Your task to perform on an android device: Search for pizza restaurants on Maps Image 0: 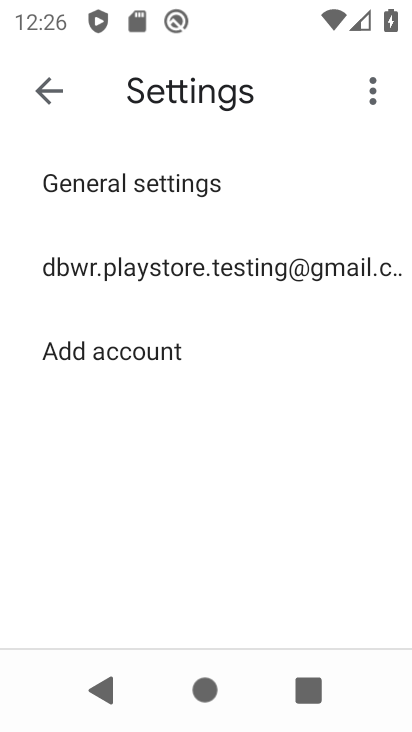
Step 0: press home button
Your task to perform on an android device: Search for pizza restaurants on Maps Image 1: 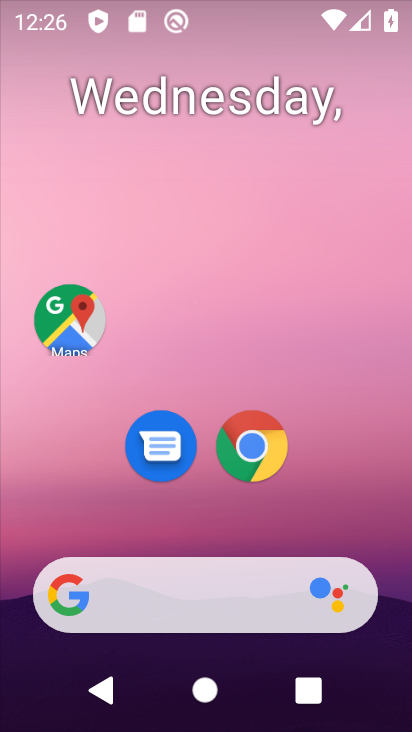
Step 1: drag from (192, 514) to (204, 189)
Your task to perform on an android device: Search for pizza restaurants on Maps Image 2: 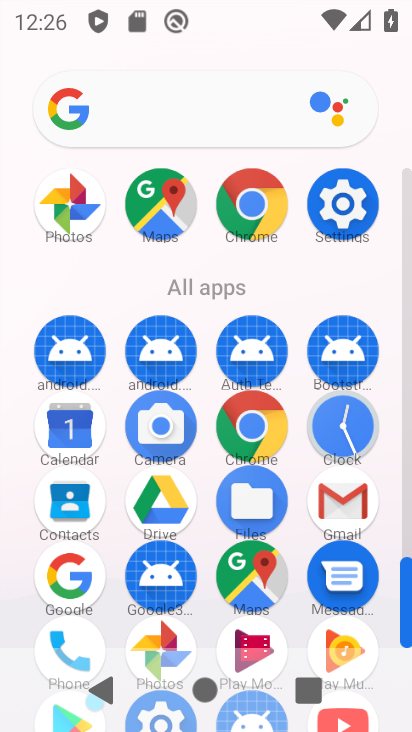
Step 2: drag from (202, 280) to (230, 64)
Your task to perform on an android device: Search for pizza restaurants on Maps Image 3: 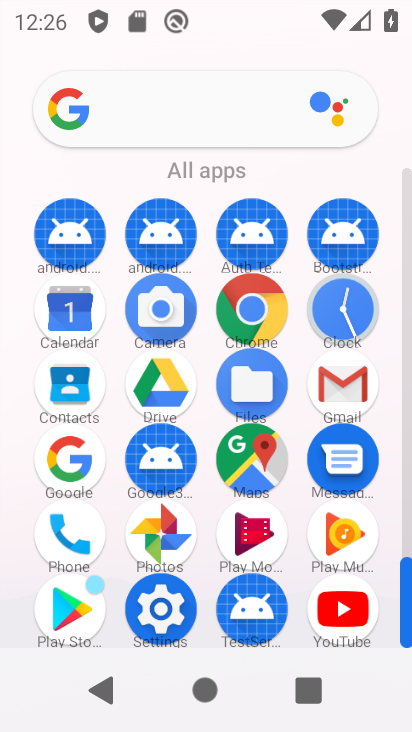
Step 3: click (263, 474)
Your task to perform on an android device: Search for pizza restaurants on Maps Image 4: 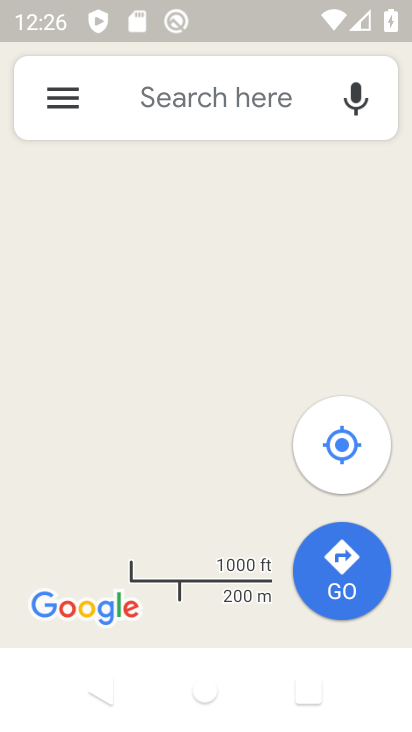
Step 4: click (194, 117)
Your task to perform on an android device: Search for pizza restaurants on Maps Image 5: 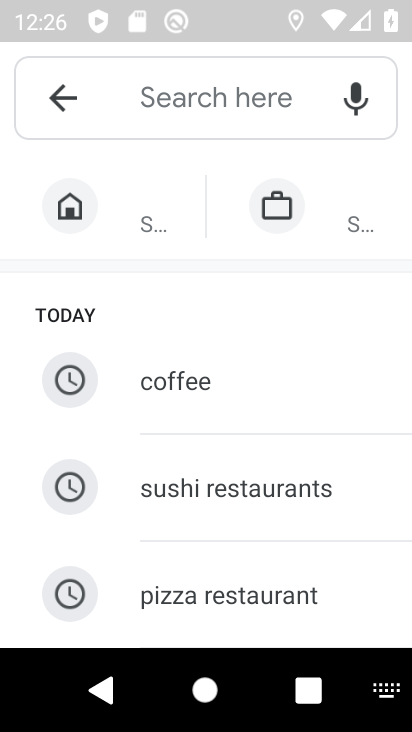
Step 5: type "pizza restaurants"
Your task to perform on an android device: Search for pizza restaurants on Maps Image 6: 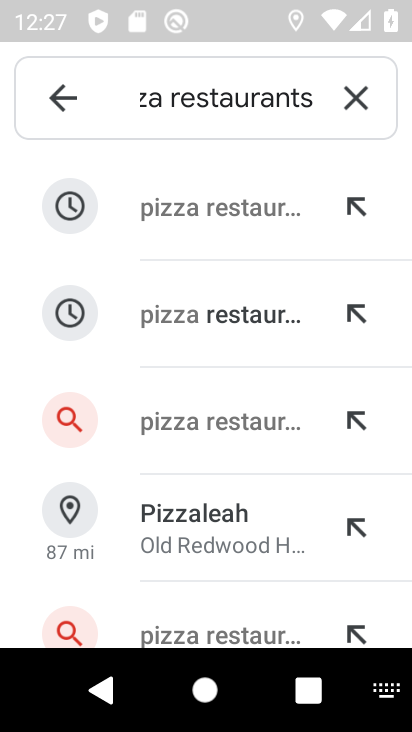
Step 6: click (183, 209)
Your task to perform on an android device: Search for pizza restaurants on Maps Image 7: 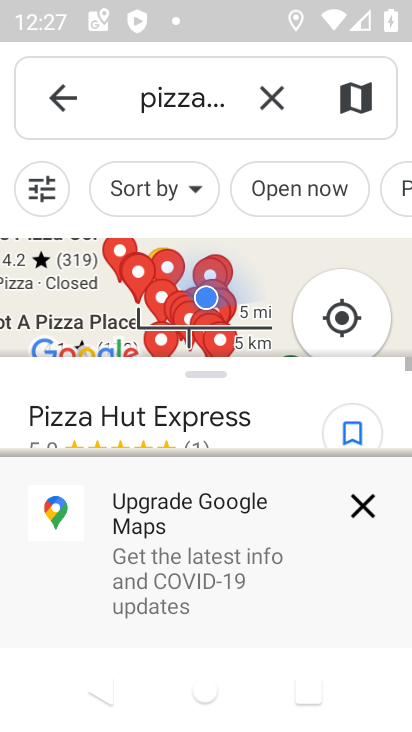
Step 7: task complete